Your task to perform on an android device: delete a single message in the gmail app Image 0: 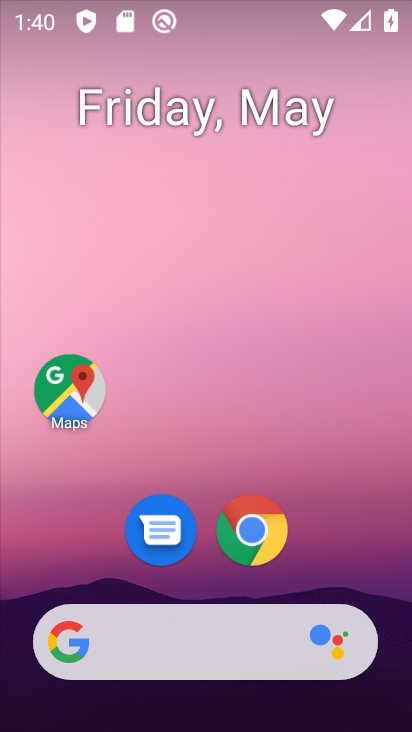
Step 0: drag from (217, 575) to (316, 47)
Your task to perform on an android device: delete a single message in the gmail app Image 1: 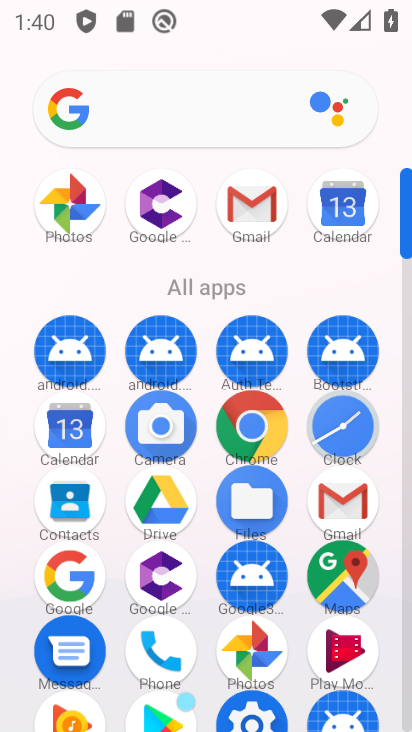
Step 1: click (353, 502)
Your task to perform on an android device: delete a single message in the gmail app Image 2: 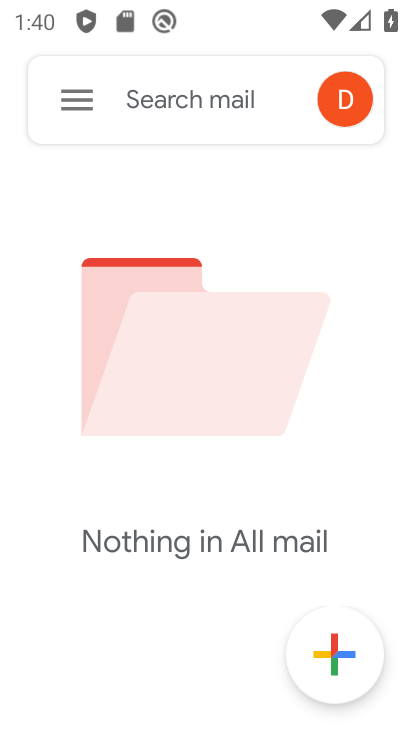
Step 2: task complete